Your task to perform on an android device: turn off priority inbox in the gmail app Image 0: 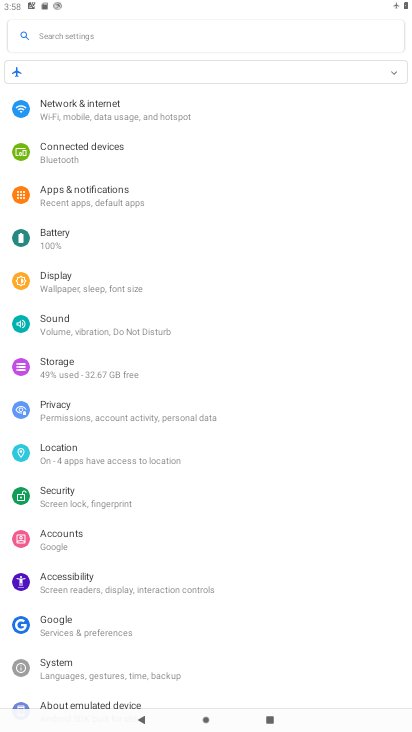
Step 0: press home button
Your task to perform on an android device: turn off priority inbox in the gmail app Image 1: 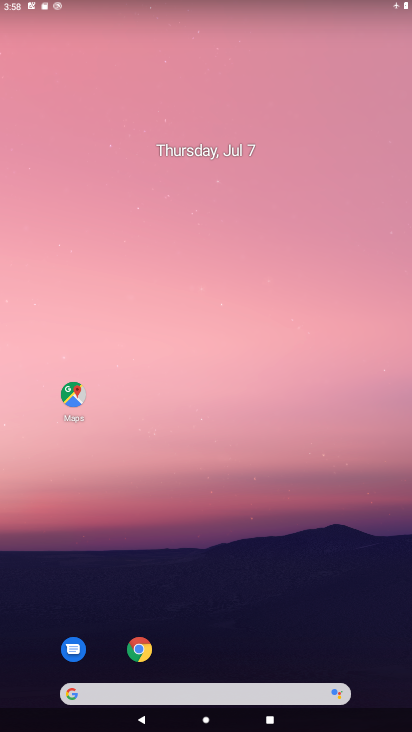
Step 1: drag from (394, 670) to (270, 36)
Your task to perform on an android device: turn off priority inbox in the gmail app Image 2: 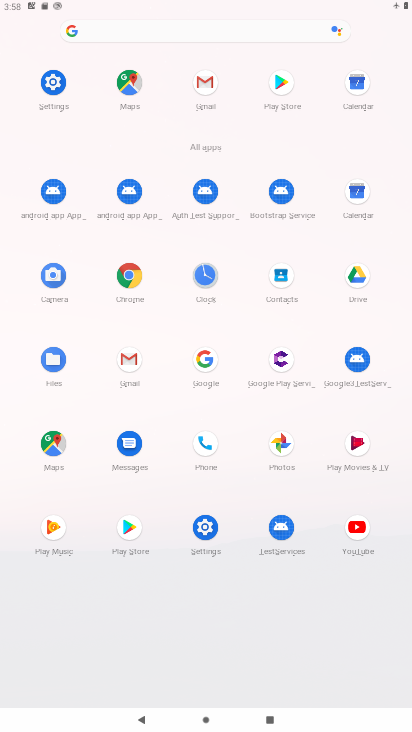
Step 2: click (128, 359)
Your task to perform on an android device: turn off priority inbox in the gmail app Image 3: 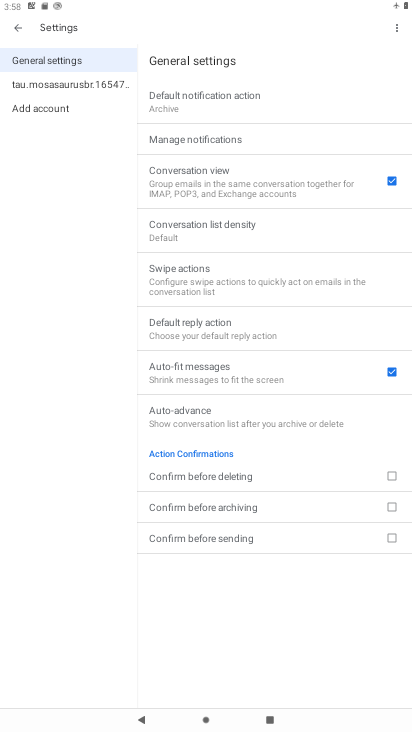
Step 3: click (57, 82)
Your task to perform on an android device: turn off priority inbox in the gmail app Image 4: 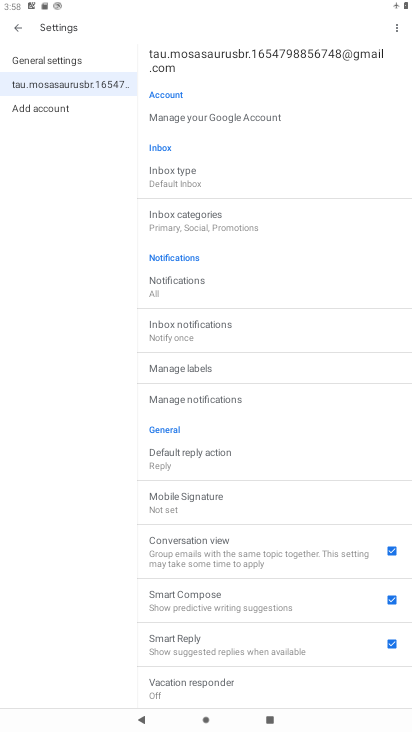
Step 4: click (169, 171)
Your task to perform on an android device: turn off priority inbox in the gmail app Image 5: 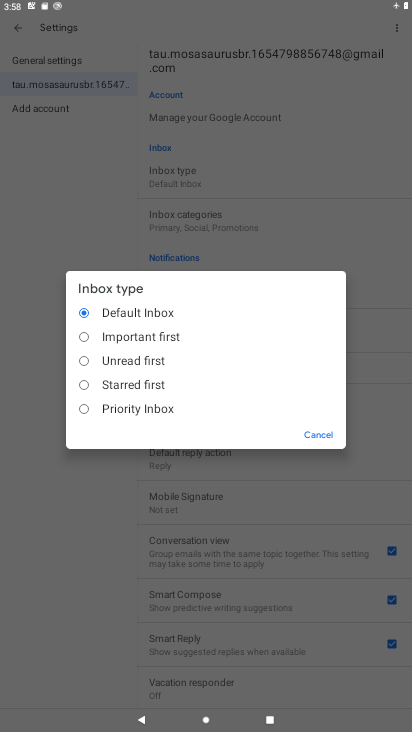
Step 5: task complete